Your task to perform on an android device: turn off airplane mode Image 0: 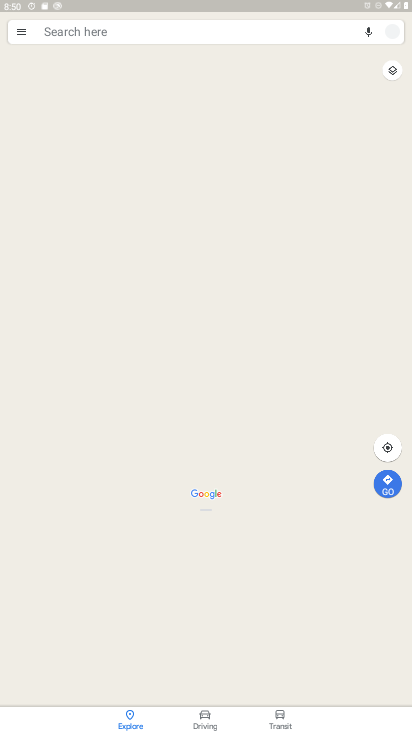
Step 0: press home button
Your task to perform on an android device: turn off airplane mode Image 1: 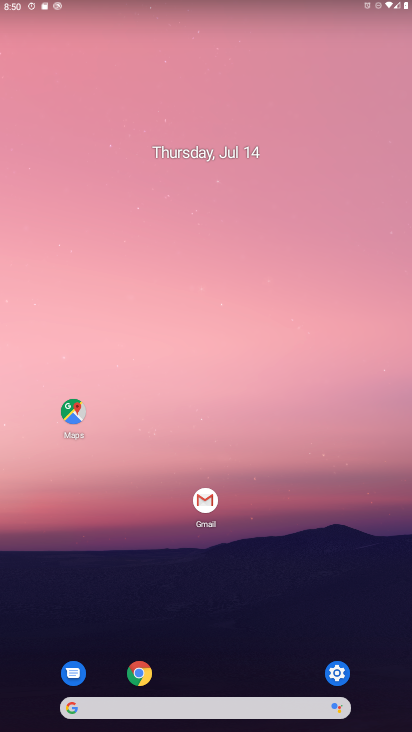
Step 1: click (339, 666)
Your task to perform on an android device: turn off airplane mode Image 2: 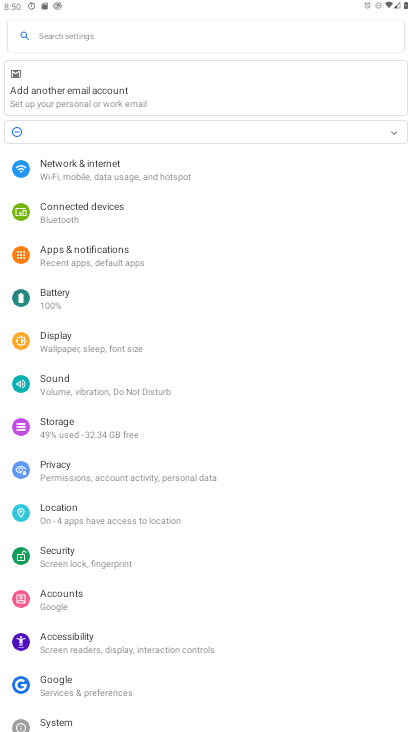
Step 2: click (132, 173)
Your task to perform on an android device: turn off airplane mode Image 3: 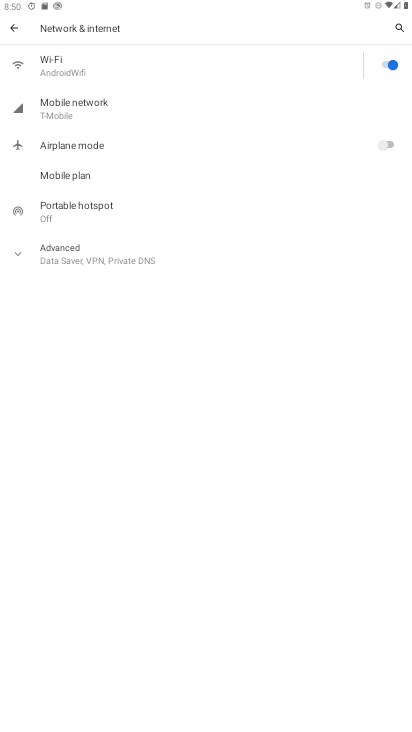
Step 3: click (380, 138)
Your task to perform on an android device: turn off airplane mode Image 4: 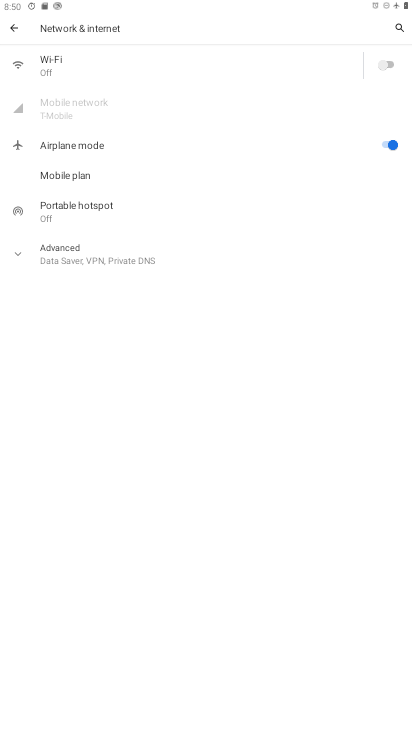
Step 4: click (385, 145)
Your task to perform on an android device: turn off airplane mode Image 5: 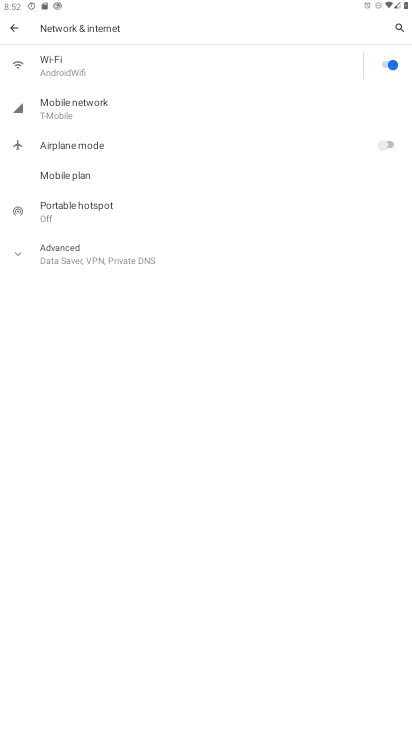
Step 5: task complete